Your task to perform on an android device: Open settings Image 0: 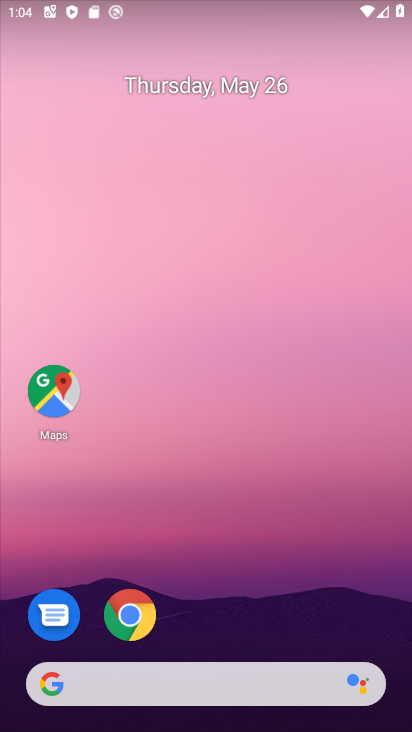
Step 0: drag from (233, 503) to (322, 112)
Your task to perform on an android device: Open settings Image 1: 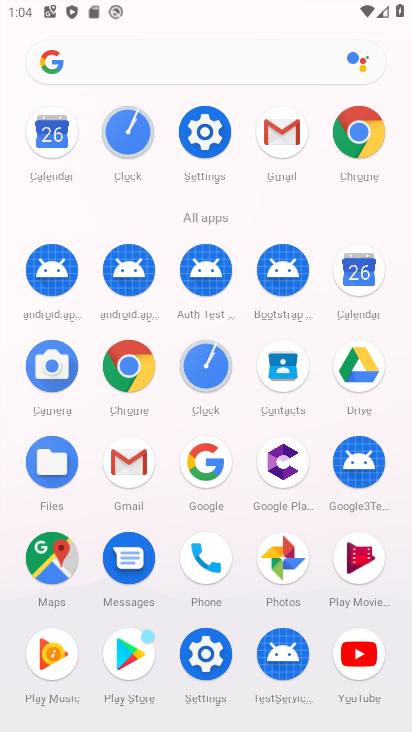
Step 1: click (196, 125)
Your task to perform on an android device: Open settings Image 2: 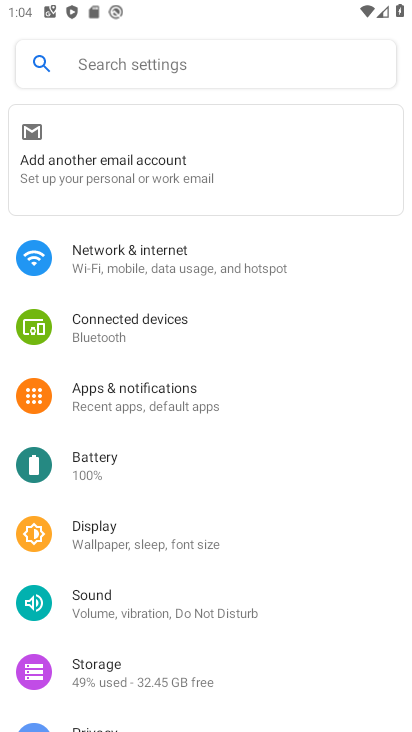
Step 2: task complete